Your task to perform on an android device: find which apps use the phone's location Image 0: 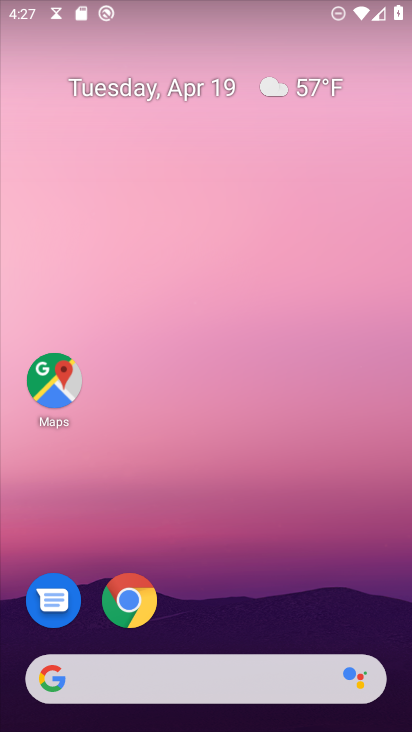
Step 0: drag from (345, 569) to (270, 171)
Your task to perform on an android device: find which apps use the phone's location Image 1: 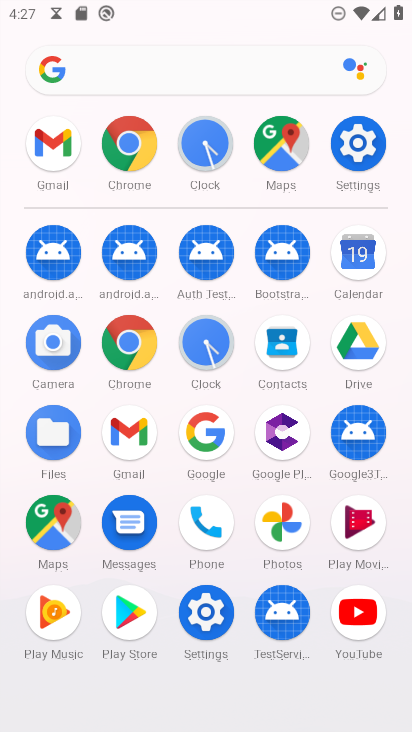
Step 1: click (211, 605)
Your task to perform on an android device: find which apps use the phone's location Image 2: 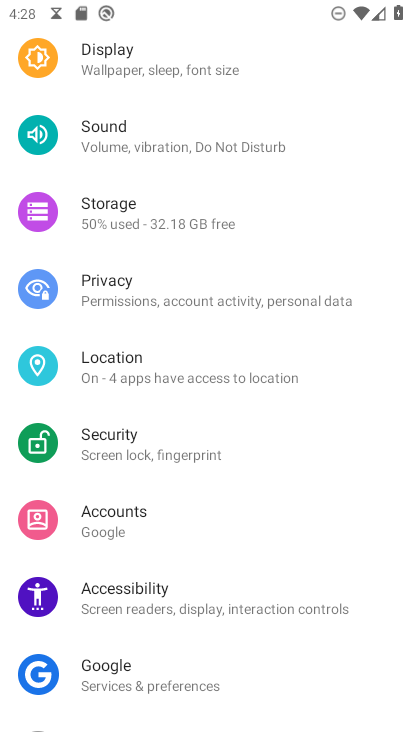
Step 2: drag from (267, 615) to (294, 256)
Your task to perform on an android device: find which apps use the phone's location Image 3: 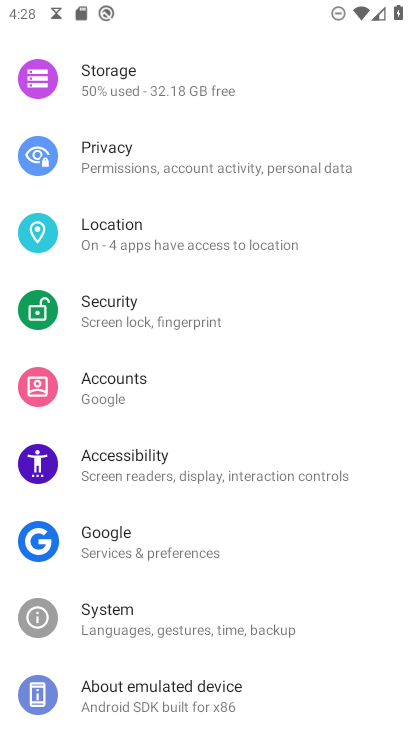
Step 3: click (272, 237)
Your task to perform on an android device: find which apps use the phone's location Image 4: 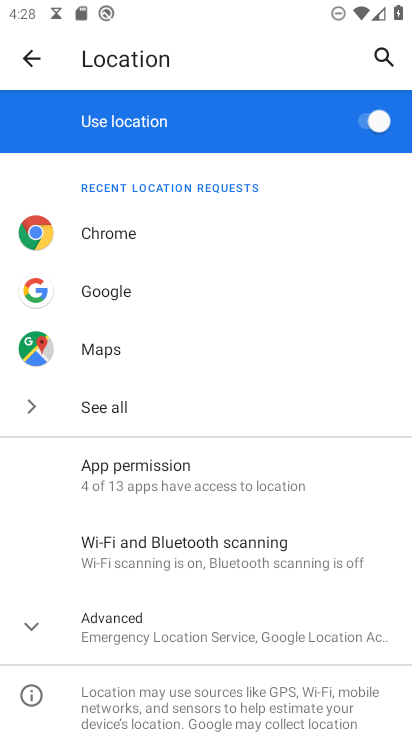
Step 4: click (204, 485)
Your task to perform on an android device: find which apps use the phone's location Image 5: 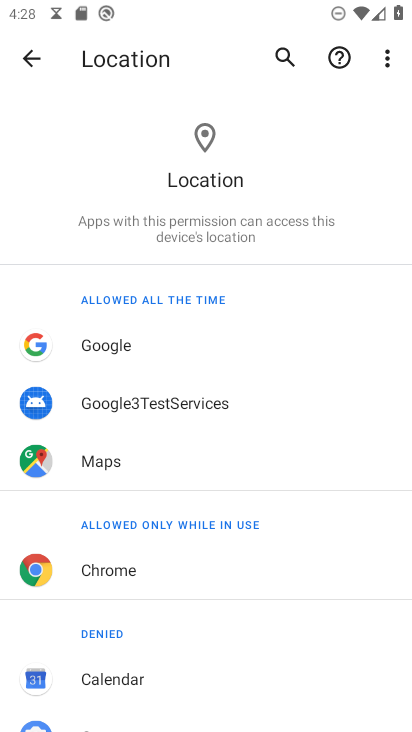
Step 5: task complete